Your task to perform on an android device: Open Google Image 0: 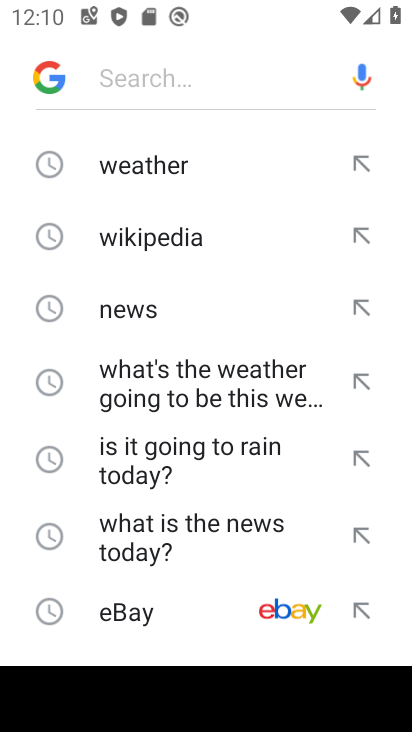
Step 0: press home button
Your task to perform on an android device: Open Google Image 1: 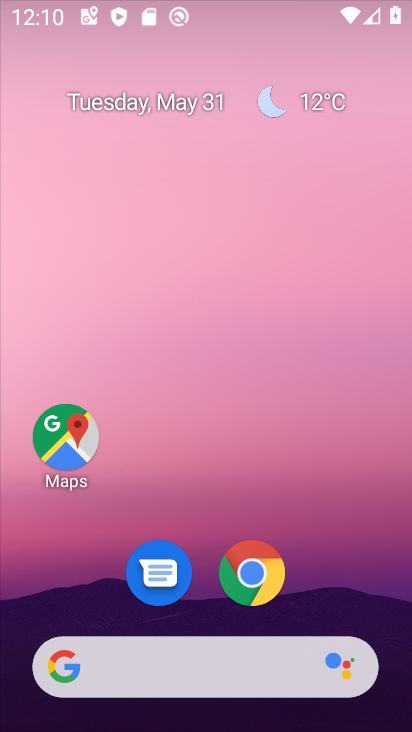
Step 1: drag from (372, 562) to (383, 169)
Your task to perform on an android device: Open Google Image 2: 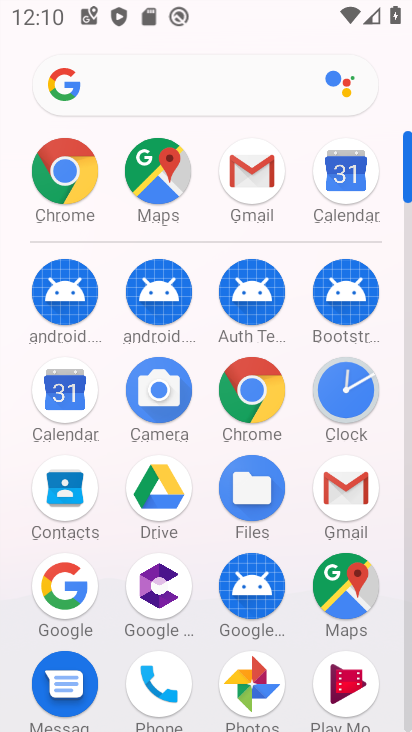
Step 2: drag from (405, 532) to (391, 225)
Your task to perform on an android device: Open Google Image 3: 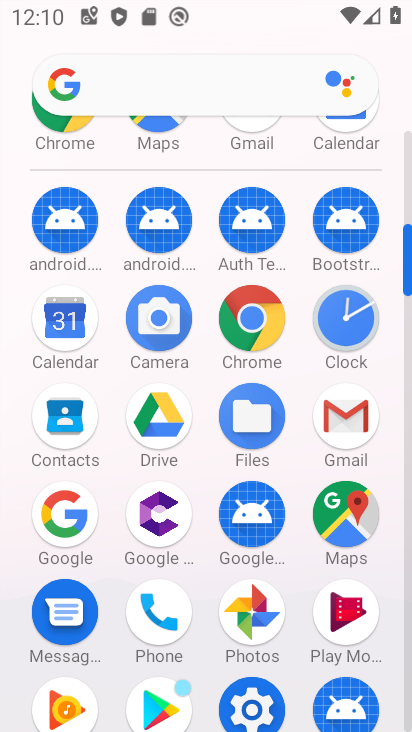
Step 3: click (53, 525)
Your task to perform on an android device: Open Google Image 4: 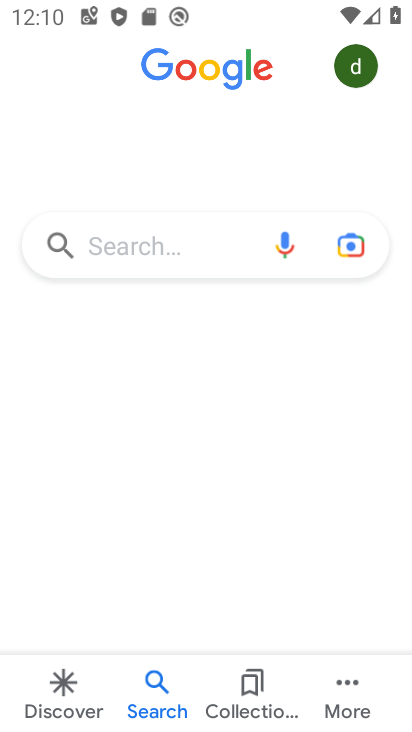
Step 4: task complete